Your task to perform on an android device: check battery use Image 0: 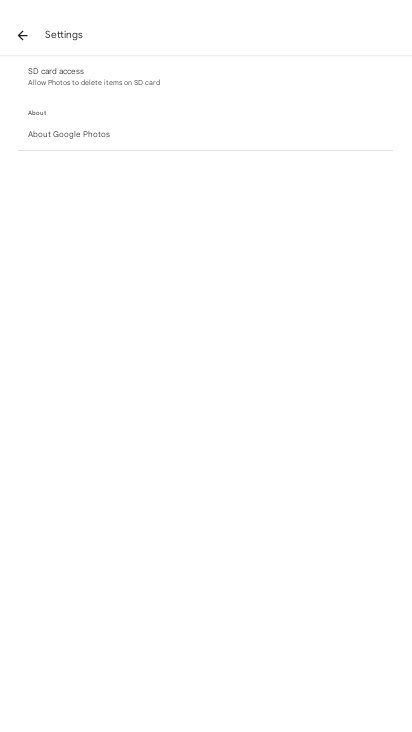
Step 0: press home button
Your task to perform on an android device: check battery use Image 1: 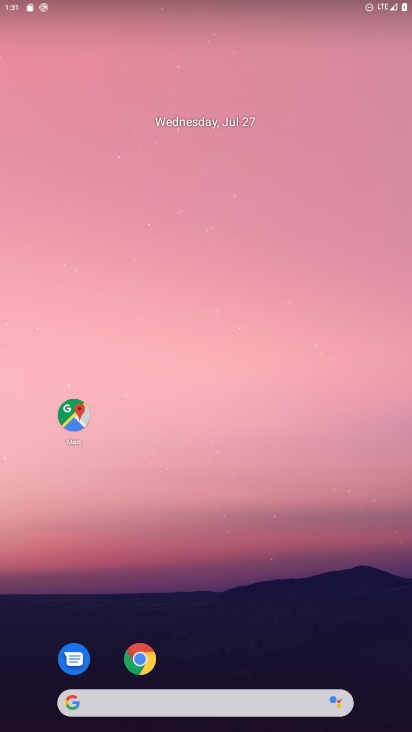
Step 1: drag from (196, 655) to (283, 148)
Your task to perform on an android device: check battery use Image 2: 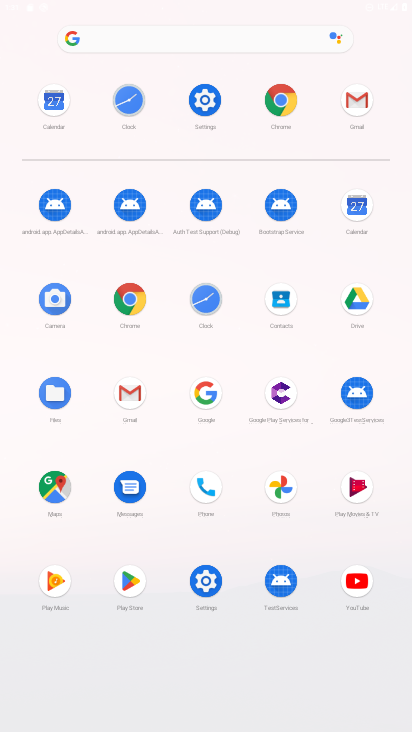
Step 2: click (201, 583)
Your task to perform on an android device: check battery use Image 3: 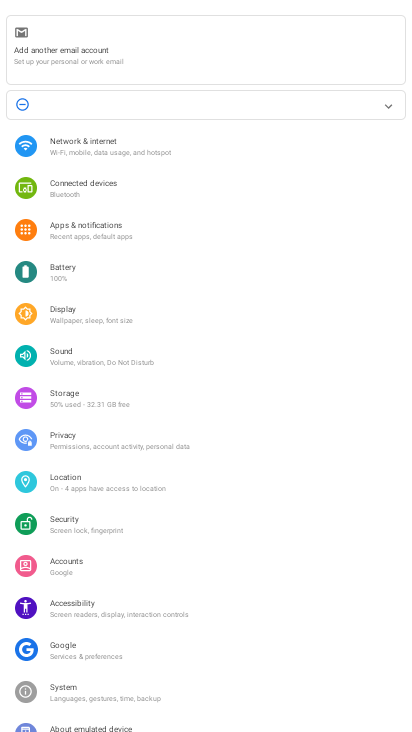
Step 3: click (75, 285)
Your task to perform on an android device: check battery use Image 4: 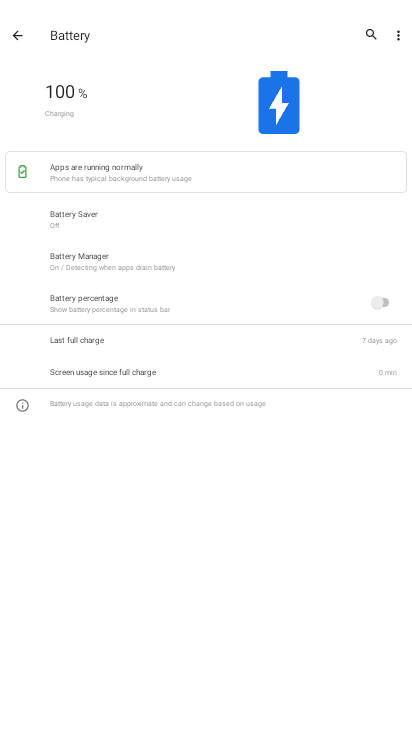
Step 4: click (394, 30)
Your task to perform on an android device: check battery use Image 5: 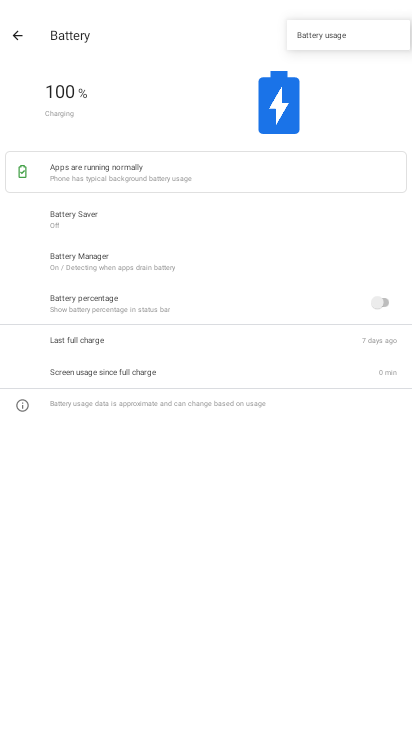
Step 5: click (386, 34)
Your task to perform on an android device: check battery use Image 6: 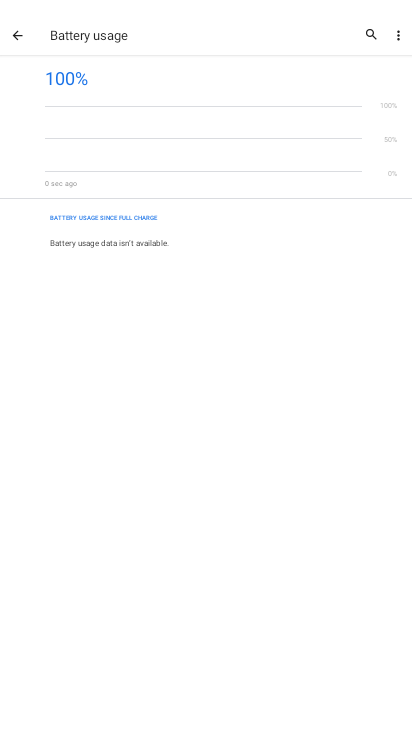
Step 6: task complete